Your task to perform on an android device: Is it going to rain today? Image 0: 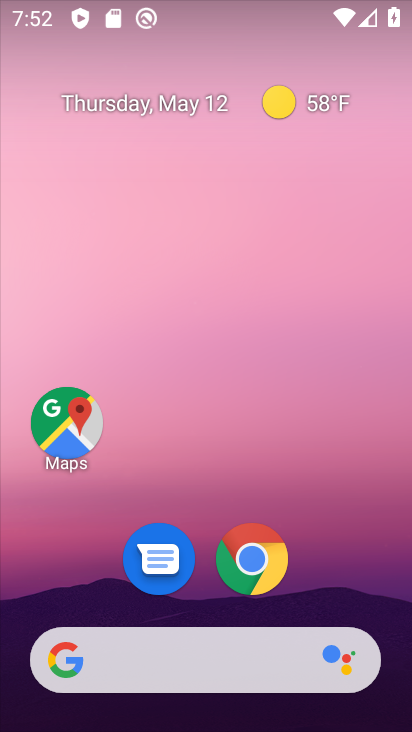
Step 0: drag from (342, 565) to (219, 46)
Your task to perform on an android device: Is it going to rain today? Image 1: 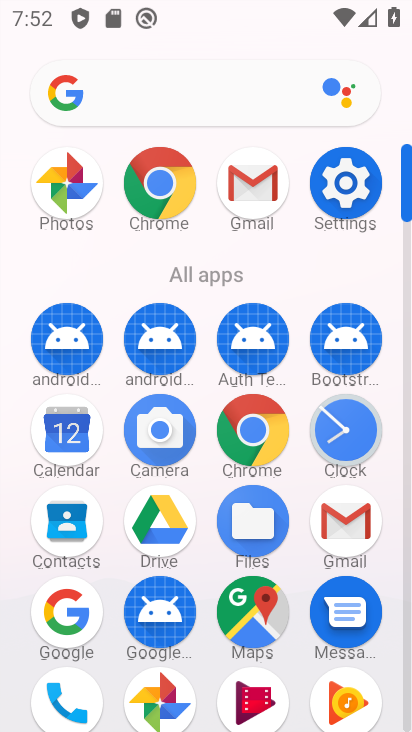
Step 1: drag from (114, 483) to (109, 258)
Your task to perform on an android device: Is it going to rain today? Image 2: 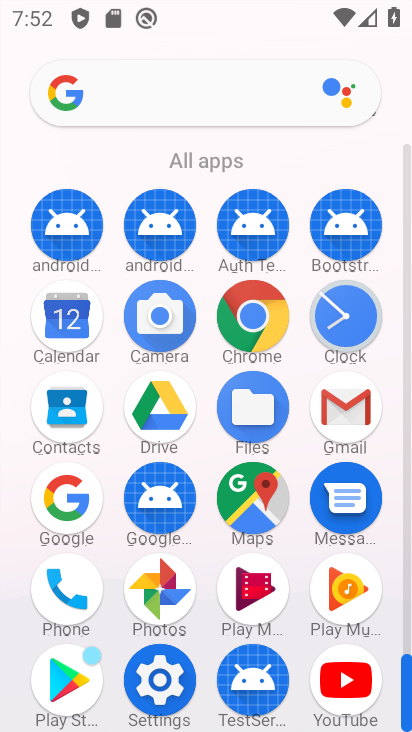
Step 2: click (62, 497)
Your task to perform on an android device: Is it going to rain today? Image 3: 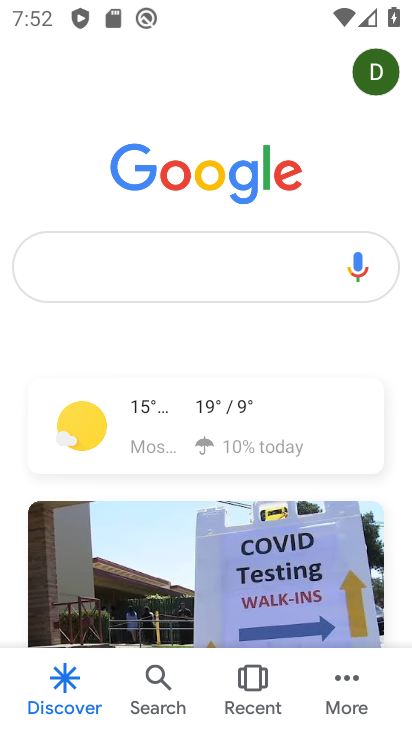
Step 3: click (189, 271)
Your task to perform on an android device: Is it going to rain today? Image 4: 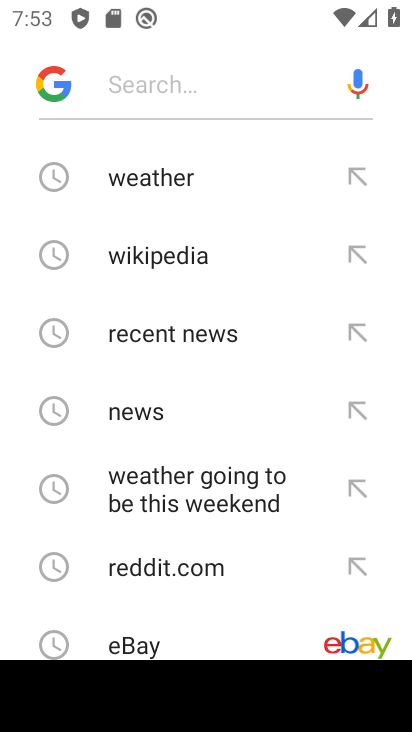
Step 4: click (148, 173)
Your task to perform on an android device: Is it going to rain today? Image 5: 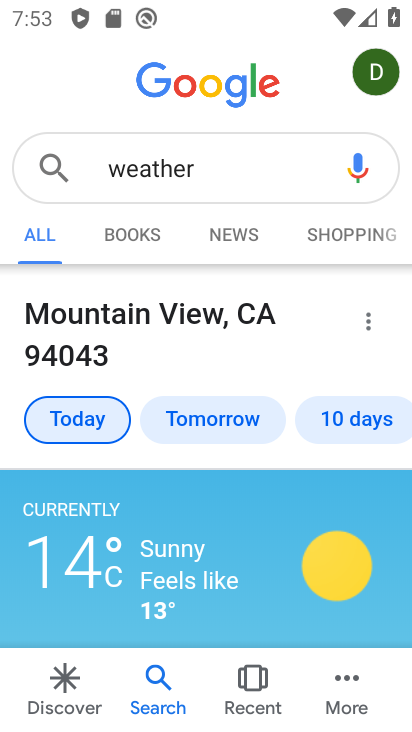
Step 5: task complete